Your task to perform on an android device: turn on airplane mode Image 0: 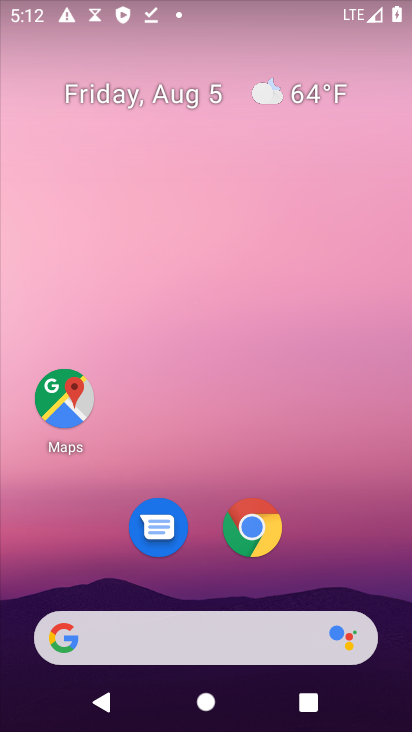
Step 0: drag from (229, 552) to (217, 171)
Your task to perform on an android device: turn on airplane mode Image 1: 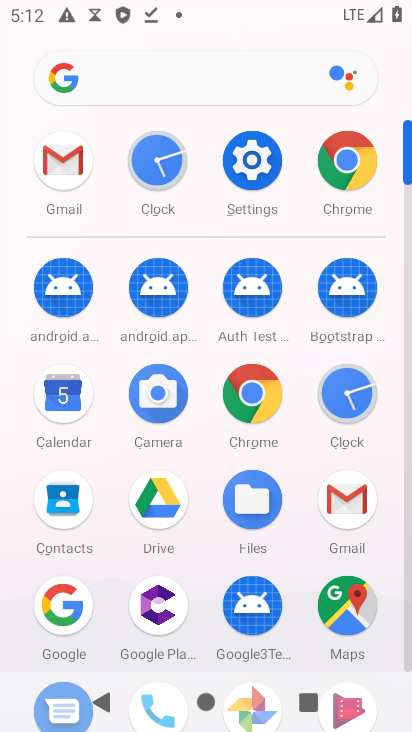
Step 1: drag from (196, 462) to (217, 260)
Your task to perform on an android device: turn on airplane mode Image 2: 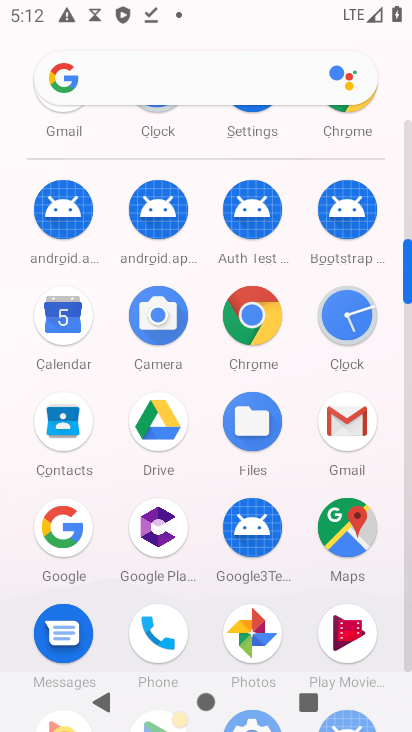
Step 2: drag from (294, 160) to (273, 584)
Your task to perform on an android device: turn on airplane mode Image 3: 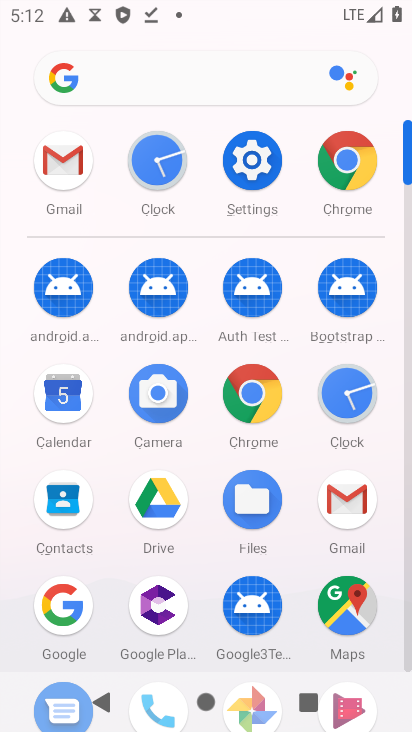
Step 3: click (252, 159)
Your task to perform on an android device: turn on airplane mode Image 4: 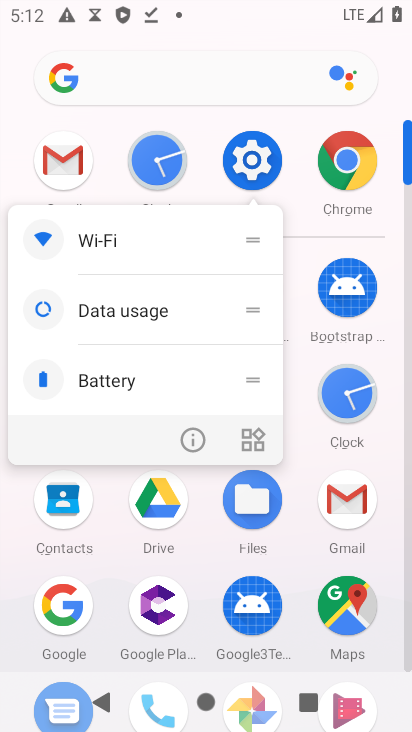
Step 4: click (179, 436)
Your task to perform on an android device: turn on airplane mode Image 5: 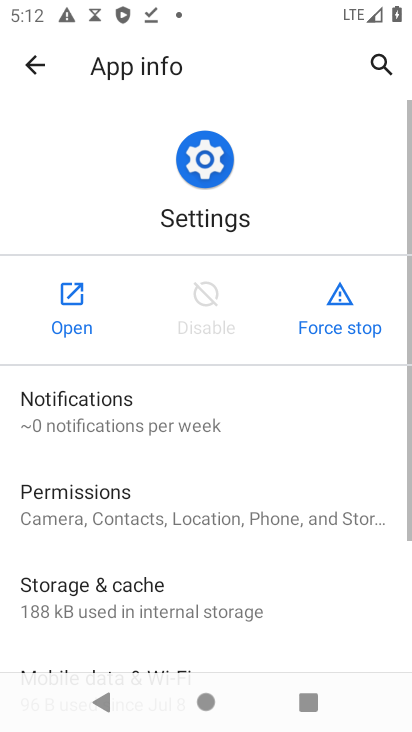
Step 5: click (95, 297)
Your task to perform on an android device: turn on airplane mode Image 6: 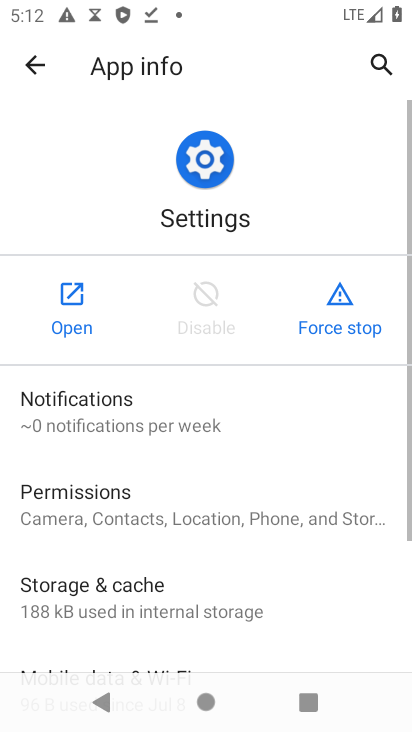
Step 6: click (91, 298)
Your task to perform on an android device: turn on airplane mode Image 7: 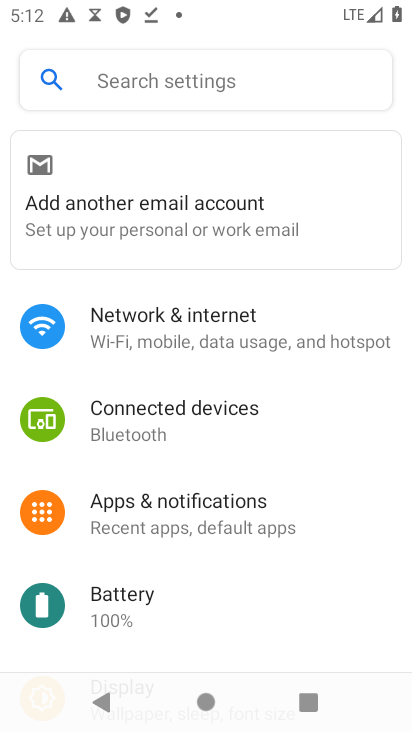
Step 7: click (170, 331)
Your task to perform on an android device: turn on airplane mode Image 8: 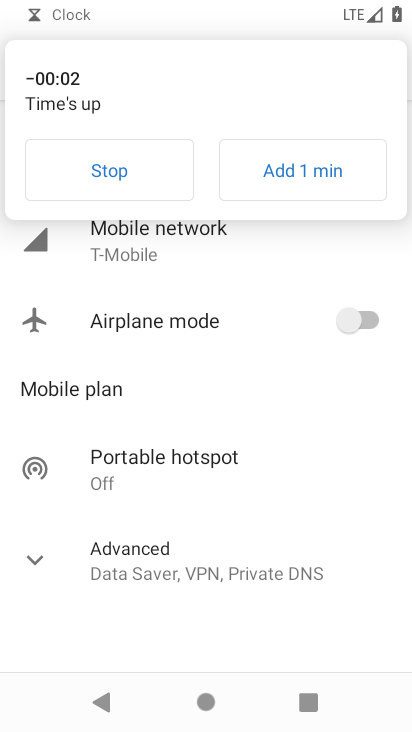
Step 8: click (76, 152)
Your task to perform on an android device: turn on airplane mode Image 9: 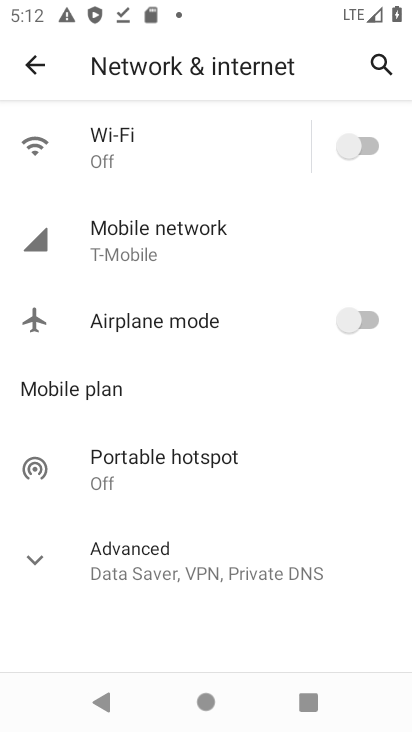
Step 9: click (219, 322)
Your task to perform on an android device: turn on airplane mode Image 10: 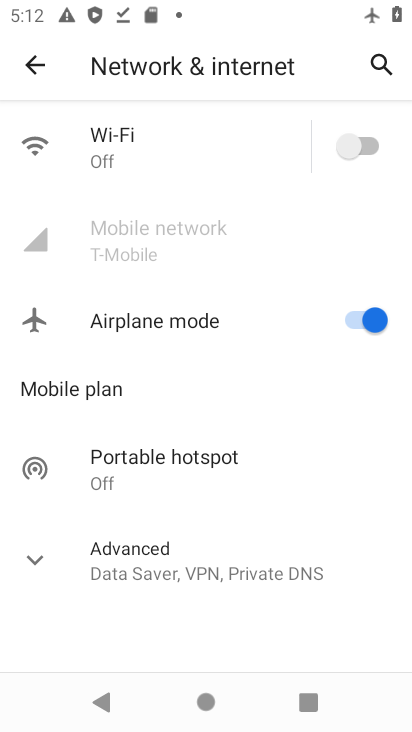
Step 10: task complete